Your task to perform on an android device: open app "DoorDash - Dasher" (install if not already installed) Image 0: 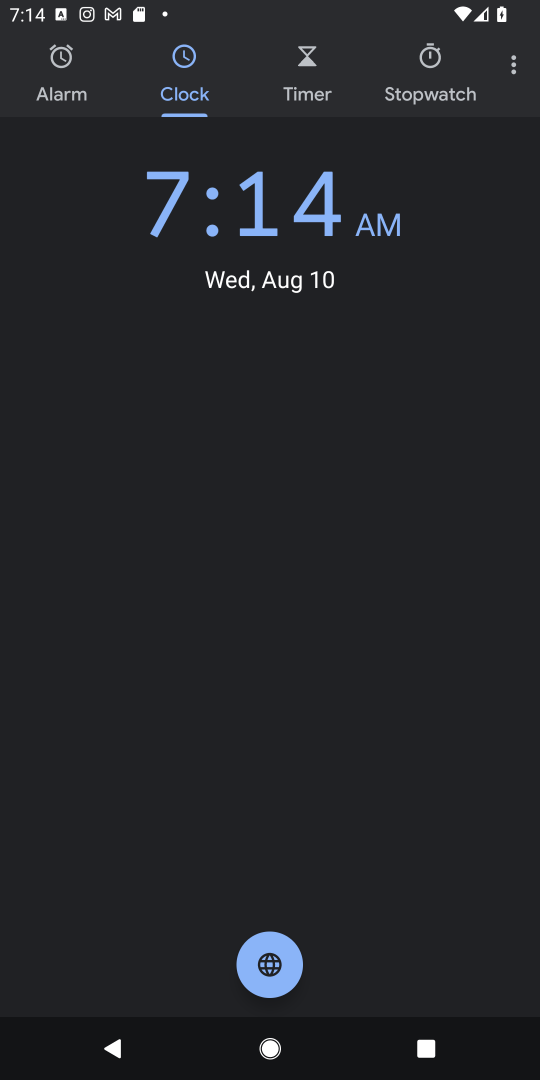
Step 0: press home button
Your task to perform on an android device: open app "DoorDash - Dasher" (install if not already installed) Image 1: 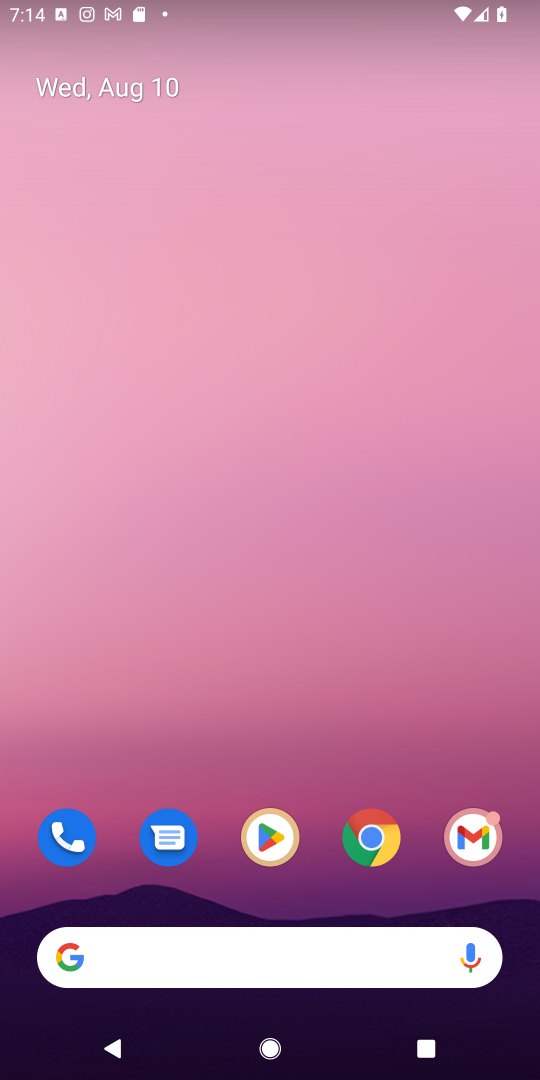
Step 1: click (260, 827)
Your task to perform on an android device: open app "DoorDash - Dasher" (install if not already installed) Image 2: 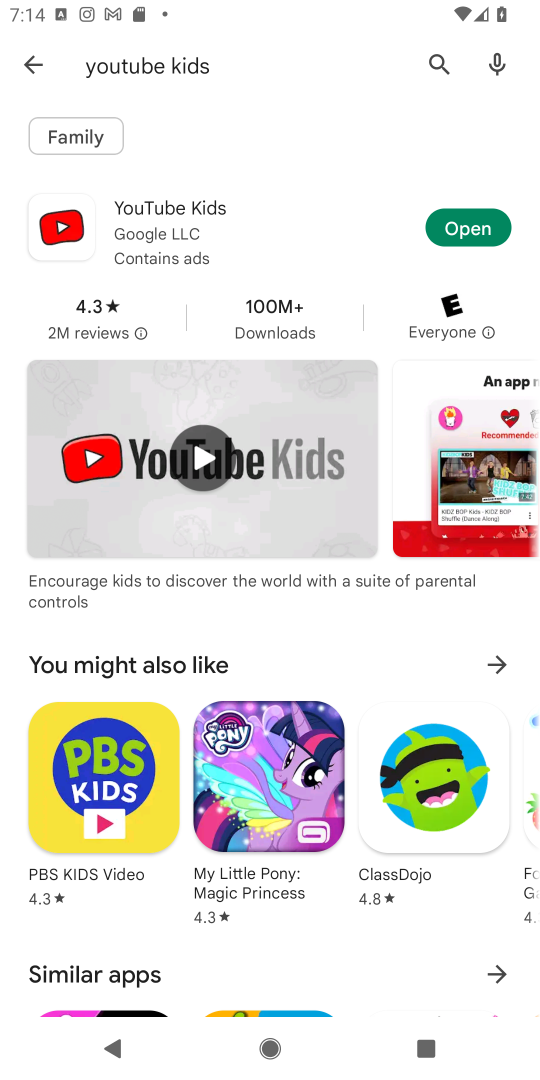
Step 2: click (435, 66)
Your task to perform on an android device: open app "DoorDash - Dasher" (install if not already installed) Image 3: 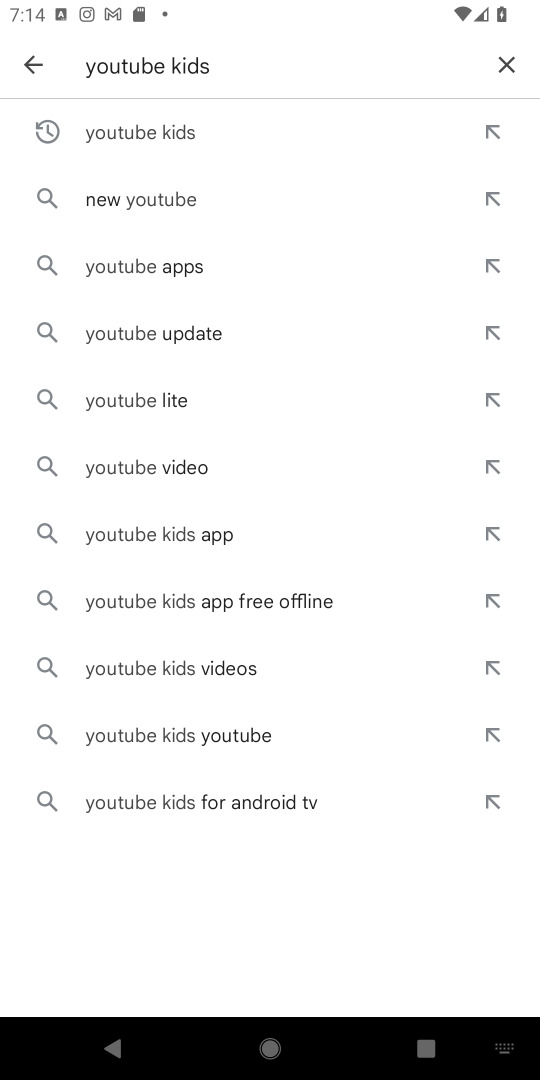
Step 3: click (506, 57)
Your task to perform on an android device: open app "DoorDash - Dasher" (install if not already installed) Image 4: 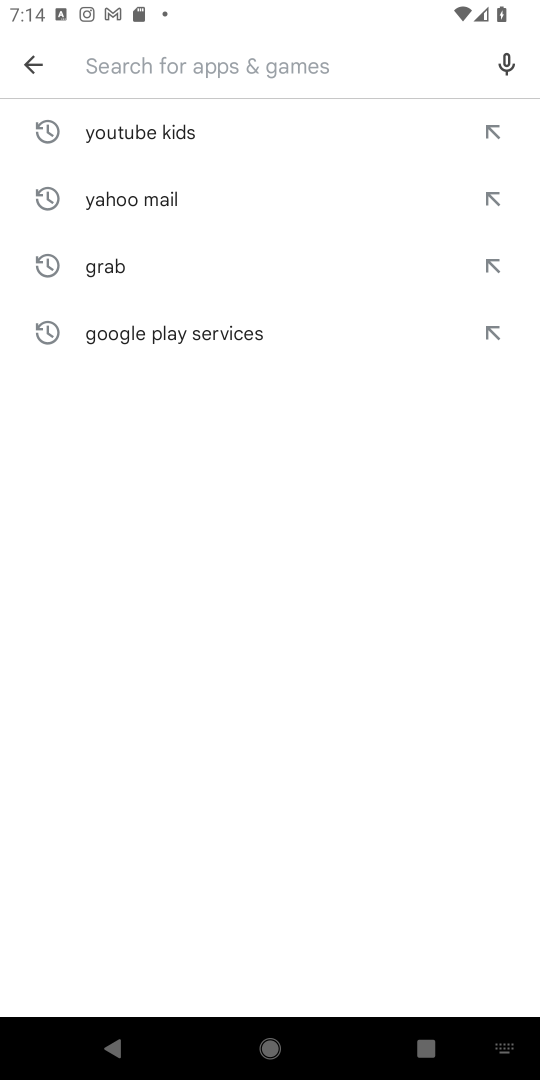
Step 4: type "DoorDash - Dasher"
Your task to perform on an android device: open app "DoorDash - Dasher" (install if not already installed) Image 5: 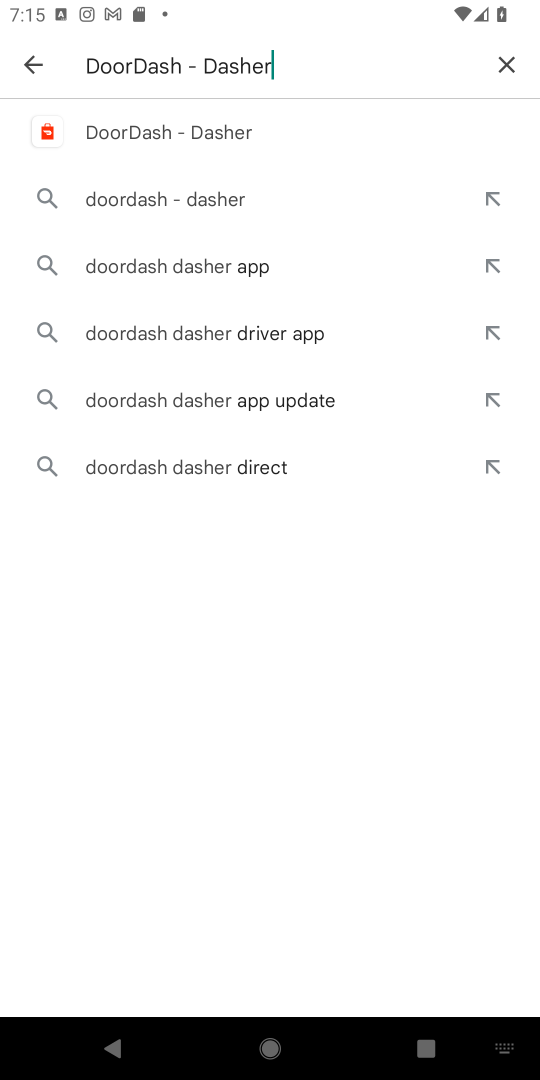
Step 5: click (204, 133)
Your task to perform on an android device: open app "DoorDash - Dasher" (install if not already installed) Image 6: 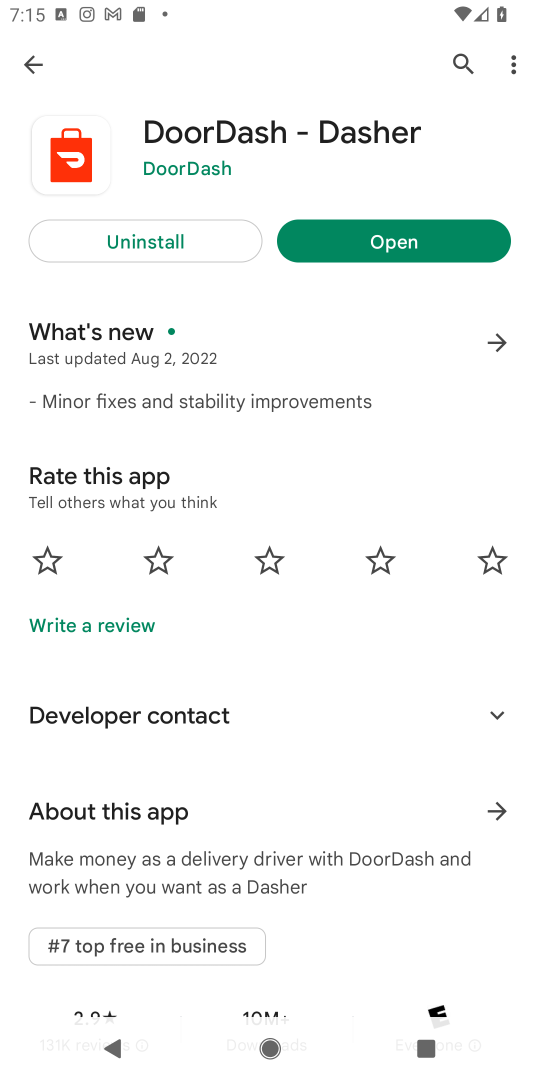
Step 6: click (406, 241)
Your task to perform on an android device: open app "DoorDash - Dasher" (install if not already installed) Image 7: 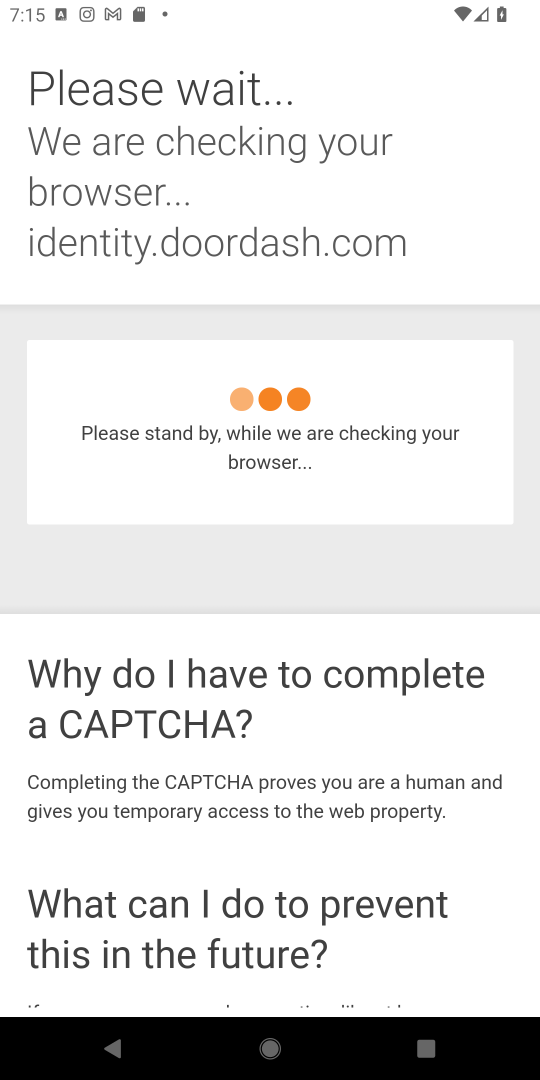
Step 7: task complete